Your task to perform on an android device: Do I have any events tomorrow? Image 0: 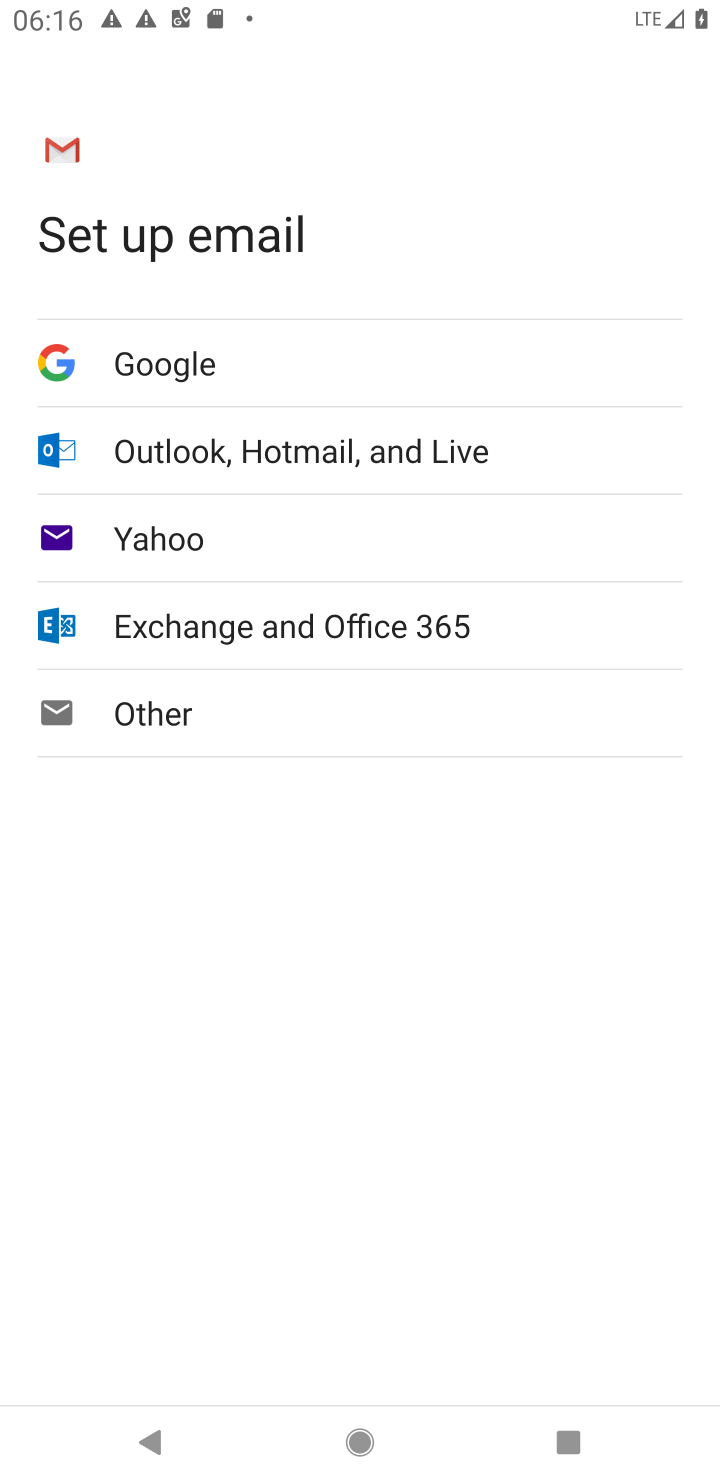
Step 0: press home button
Your task to perform on an android device: Do I have any events tomorrow? Image 1: 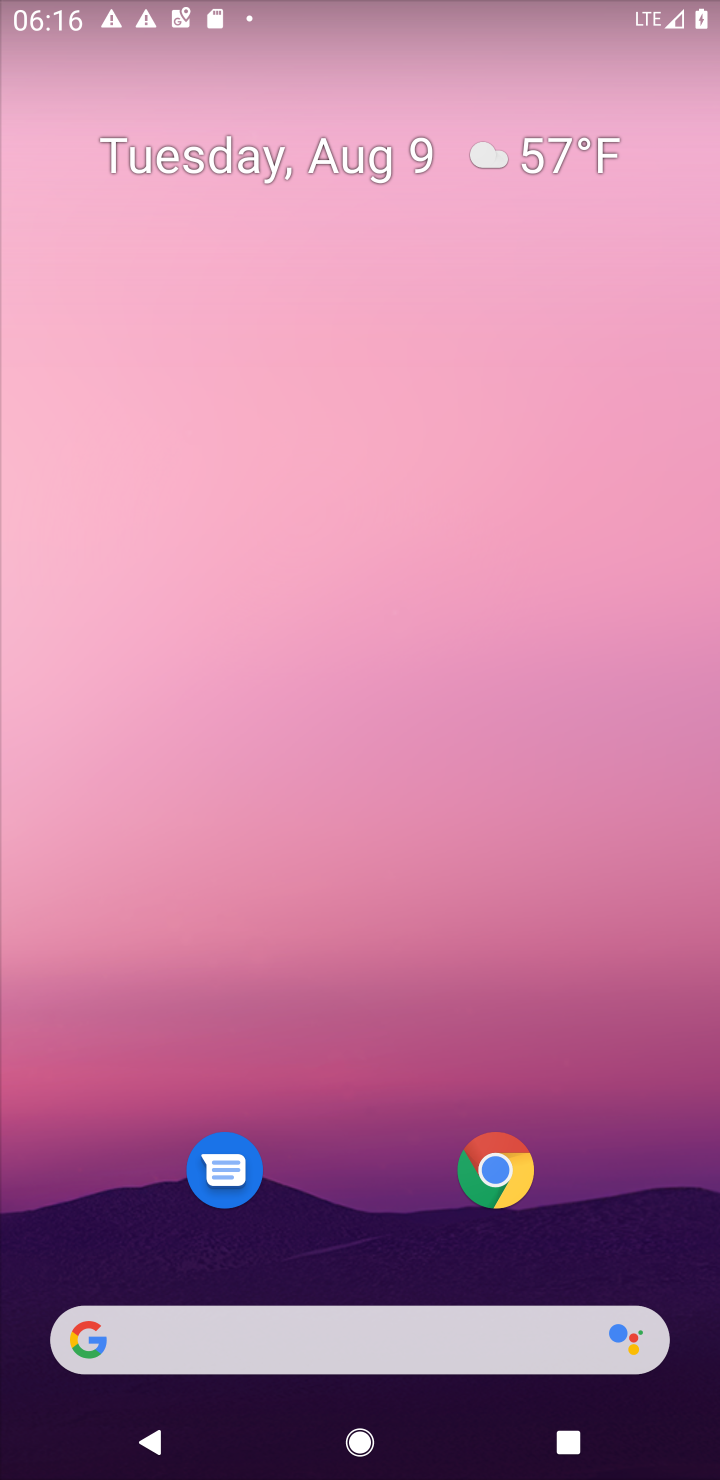
Step 1: drag from (327, 942) to (310, 168)
Your task to perform on an android device: Do I have any events tomorrow? Image 2: 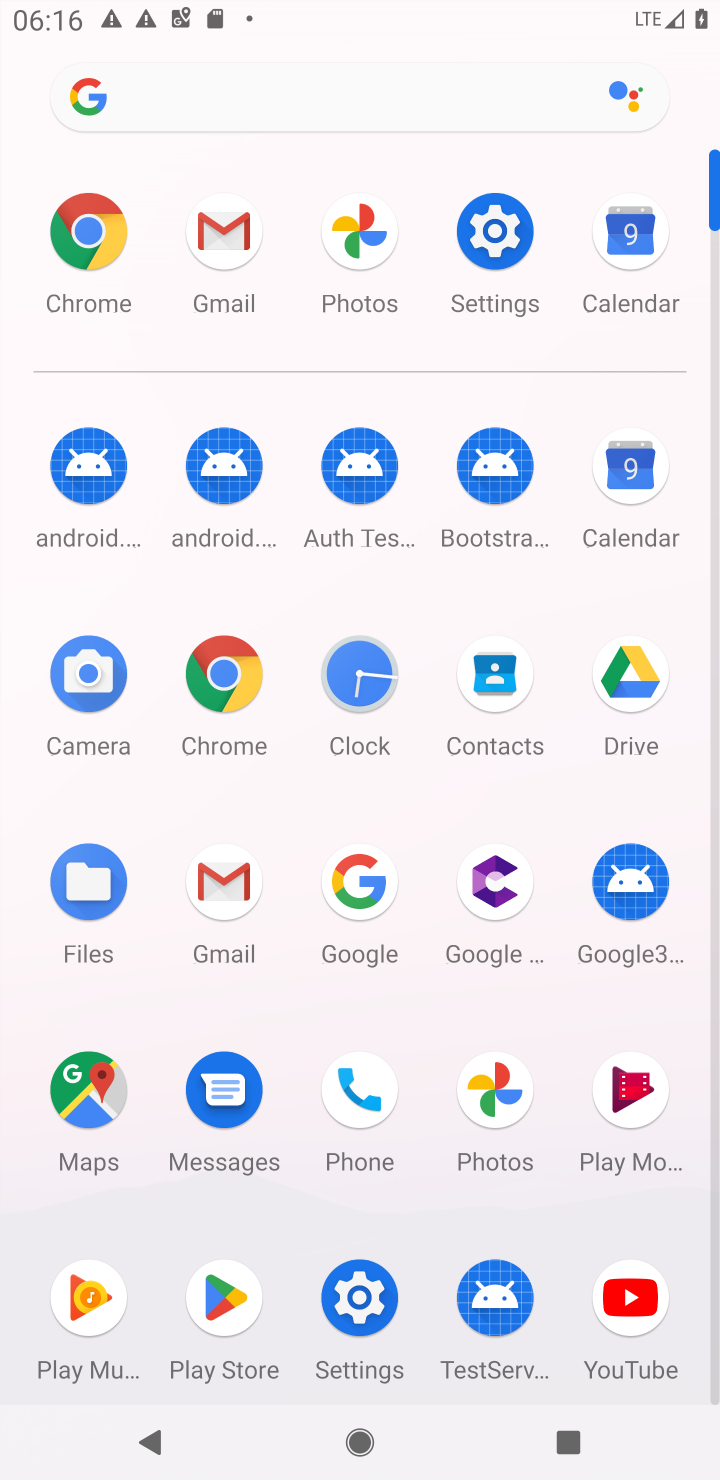
Step 2: click (648, 466)
Your task to perform on an android device: Do I have any events tomorrow? Image 3: 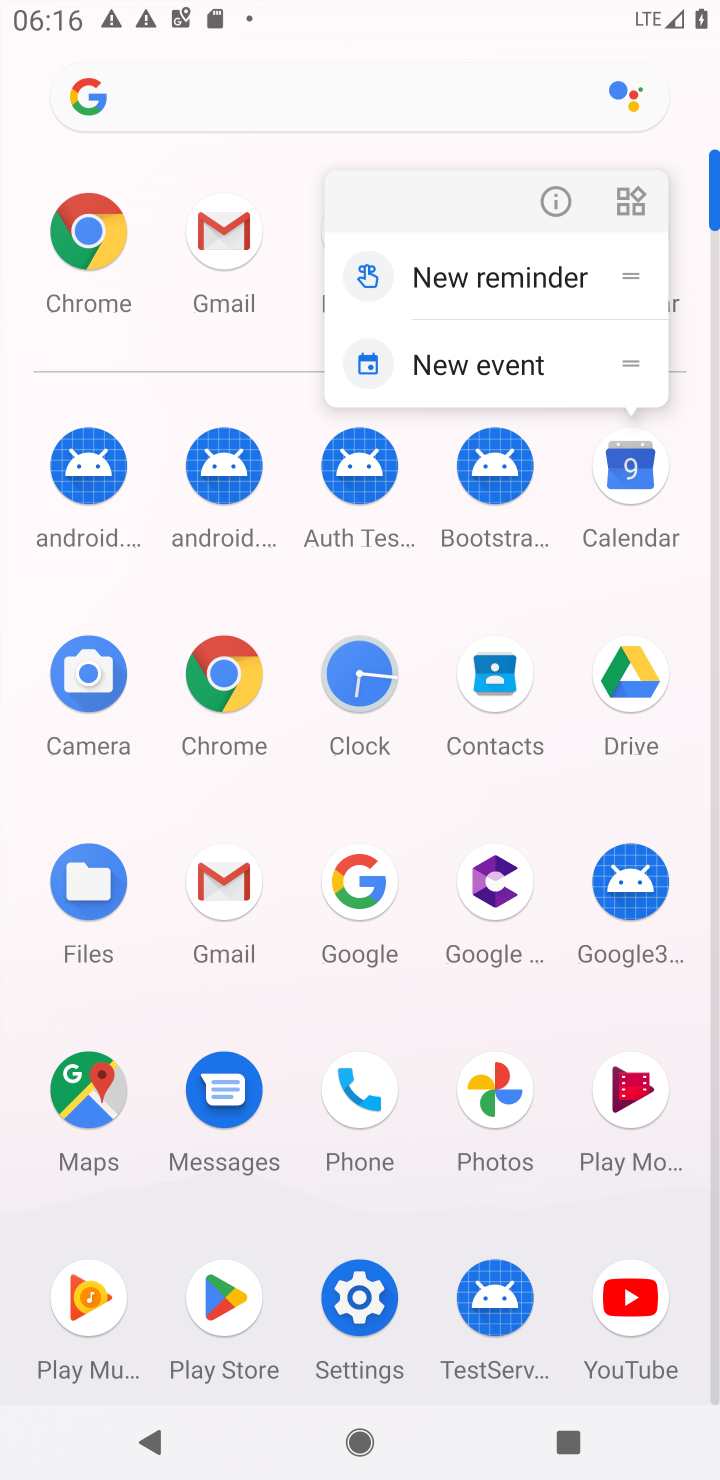
Step 3: click (627, 484)
Your task to perform on an android device: Do I have any events tomorrow? Image 4: 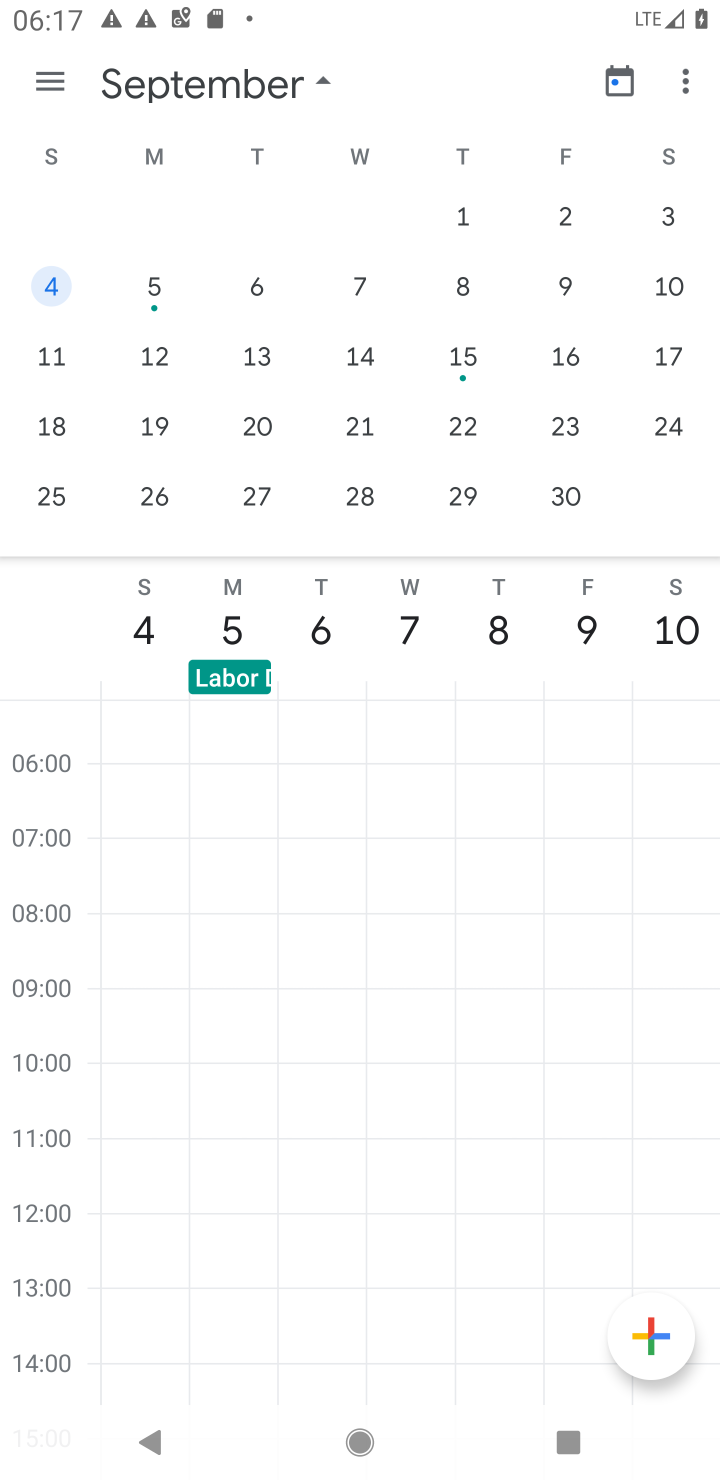
Step 4: click (305, 94)
Your task to perform on an android device: Do I have any events tomorrow? Image 5: 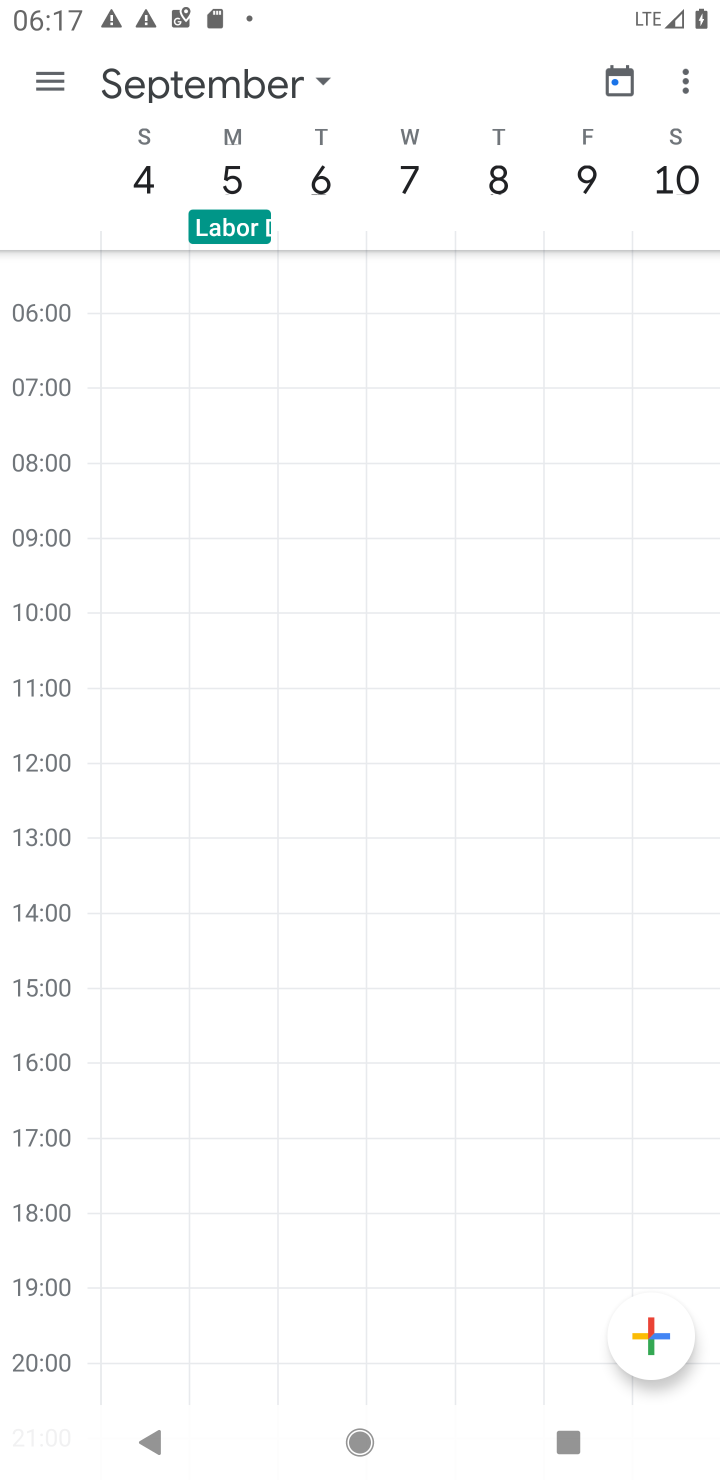
Step 5: click (317, 88)
Your task to perform on an android device: Do I have any events tomorrow? Image 6: 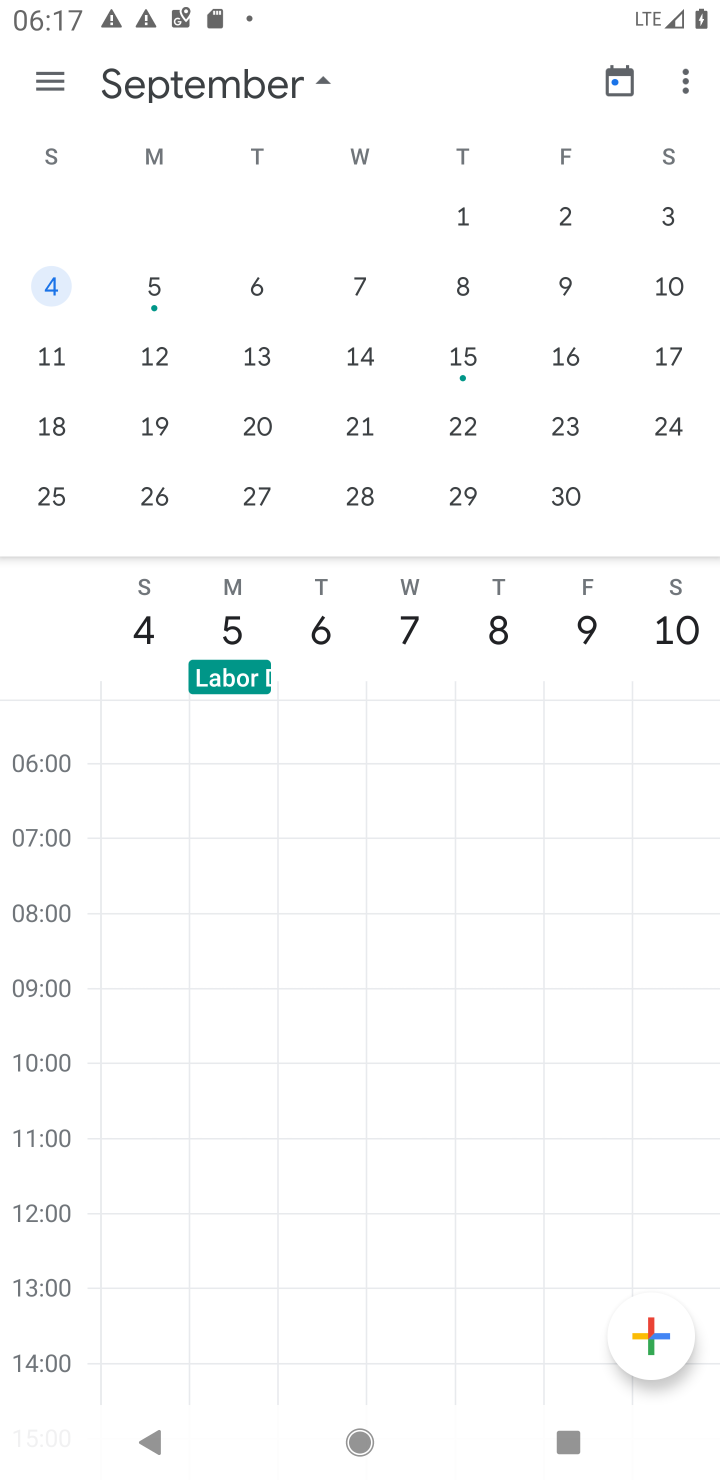
Step 6: drag from (136, 363) to (691, 377)
Your task to perform on an android device: Do I have any events tomorrow? Image 7: 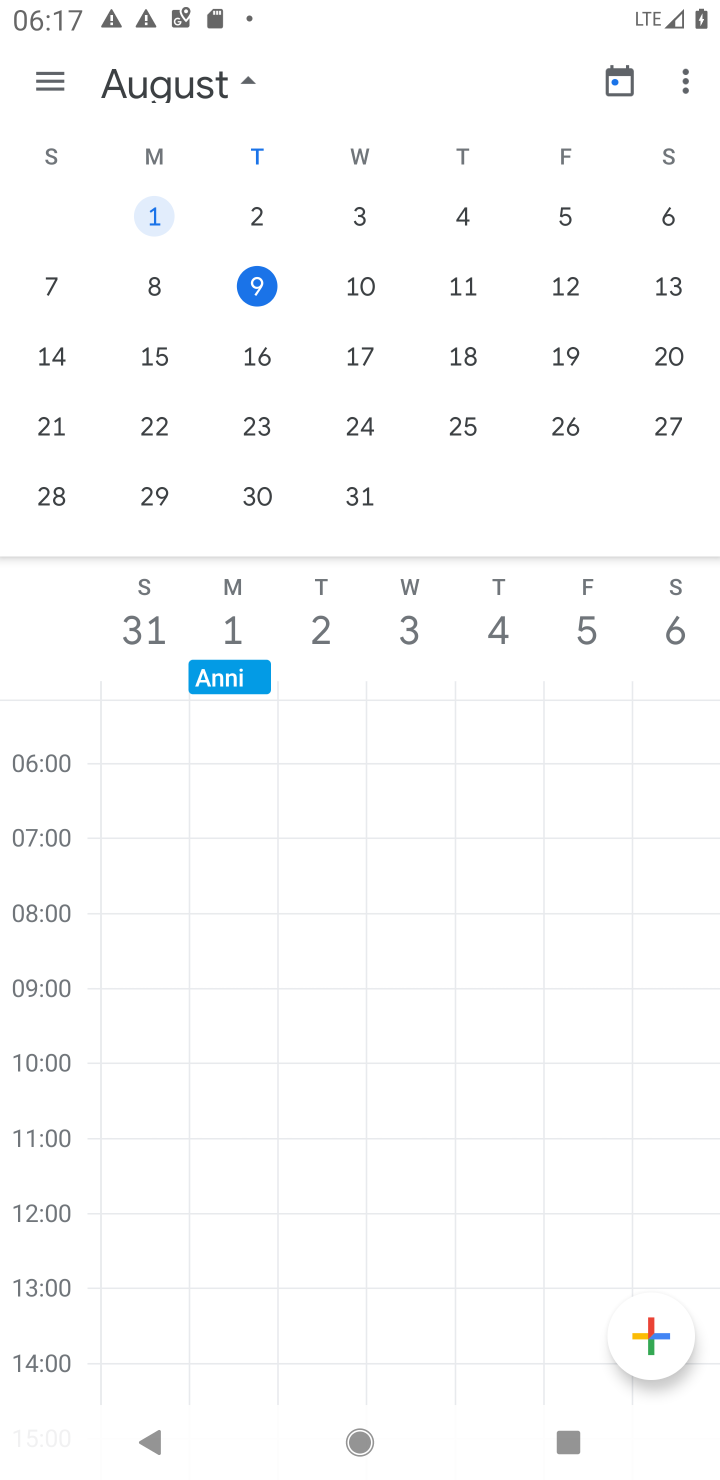
Step 7: click (354, 297)
Your task to perform on an android device: Do I have any events tomorrow? Image 8: 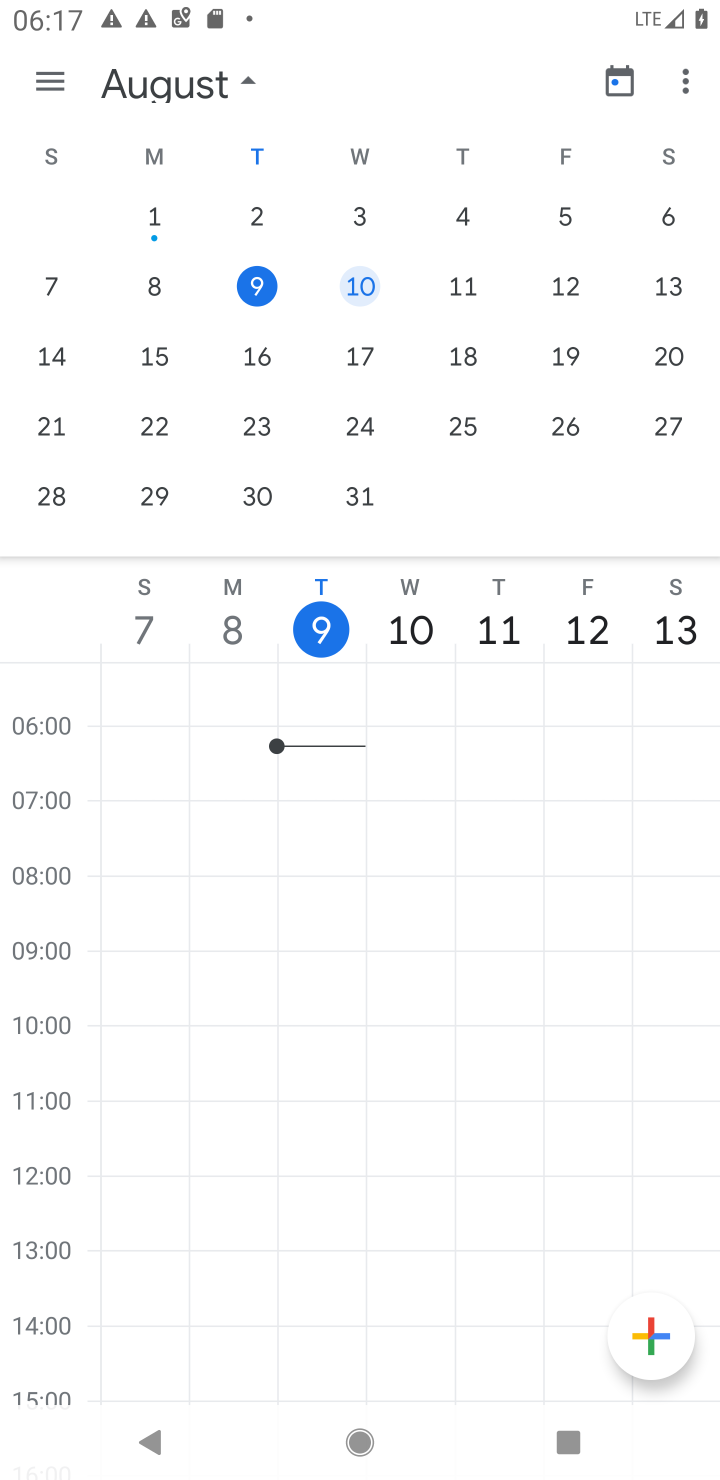
Step 8: task complete